Your task to perform on an android device: Add usb-a to usb-b to the cart on newegg, then select checkout. Image 0: 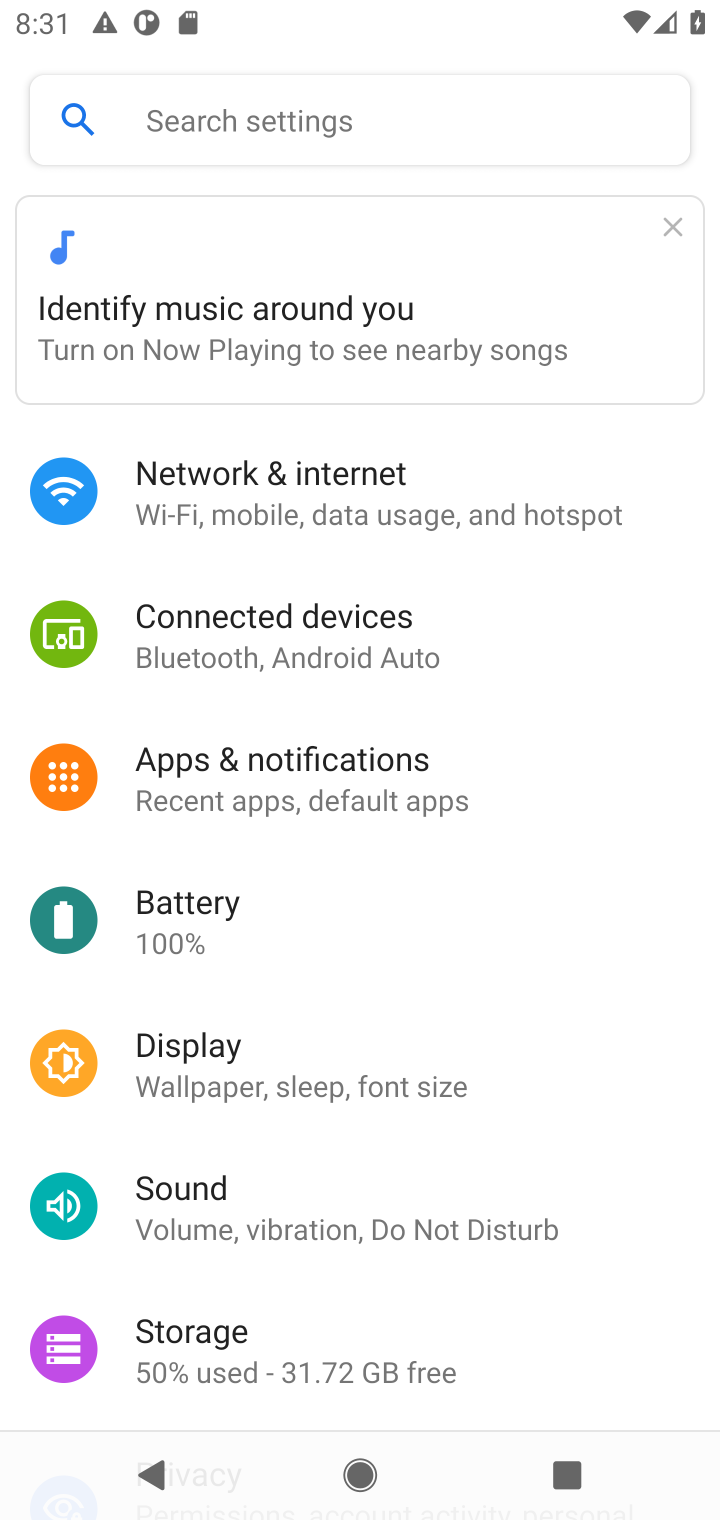
Step 0: press home button
Your task to perform on an android device: Add usb-a to usb-b to the cart on newegg, then select checkout. Image 1: 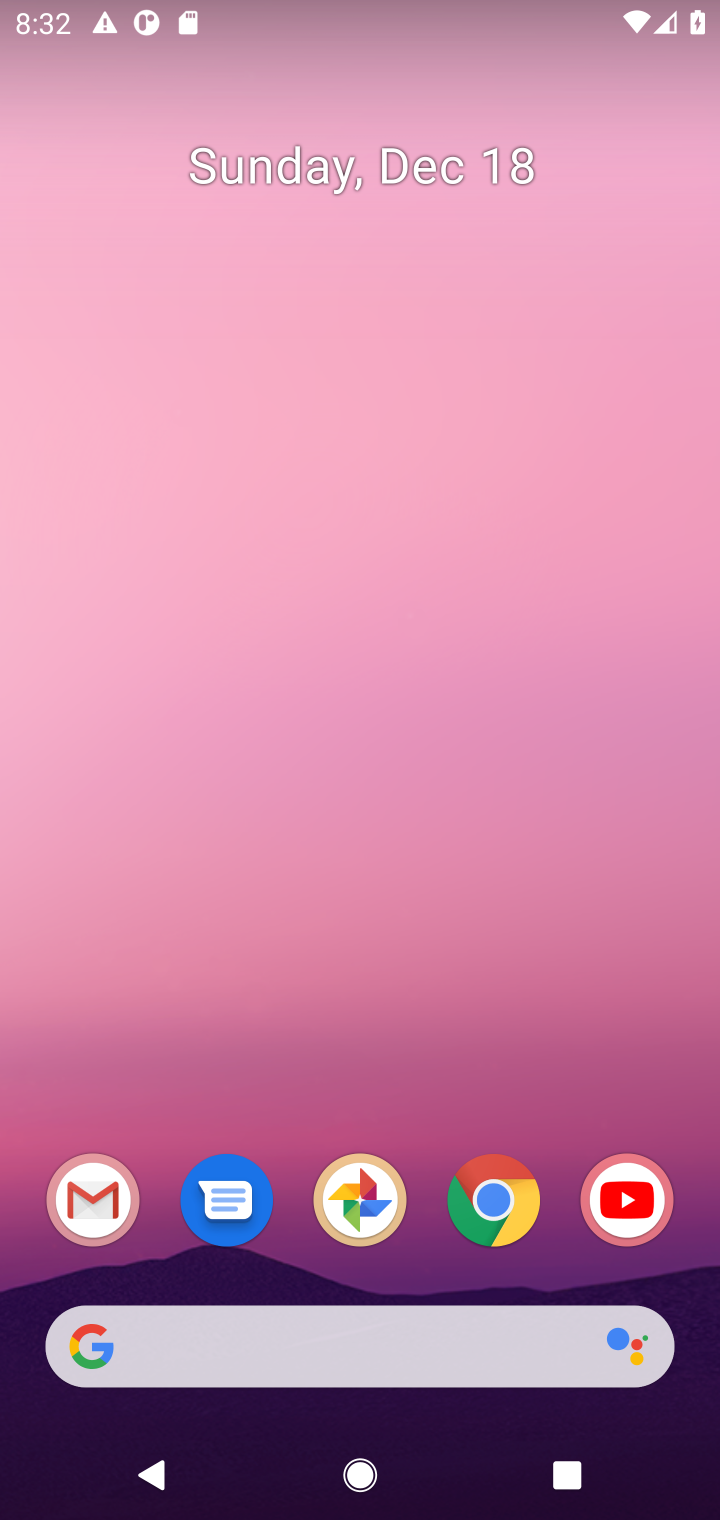
Step 1: click (491, 1210)
Your task to perform on an android device: Add usb-a to usb-b to the cart on newegg, then select checkout. Image 2: 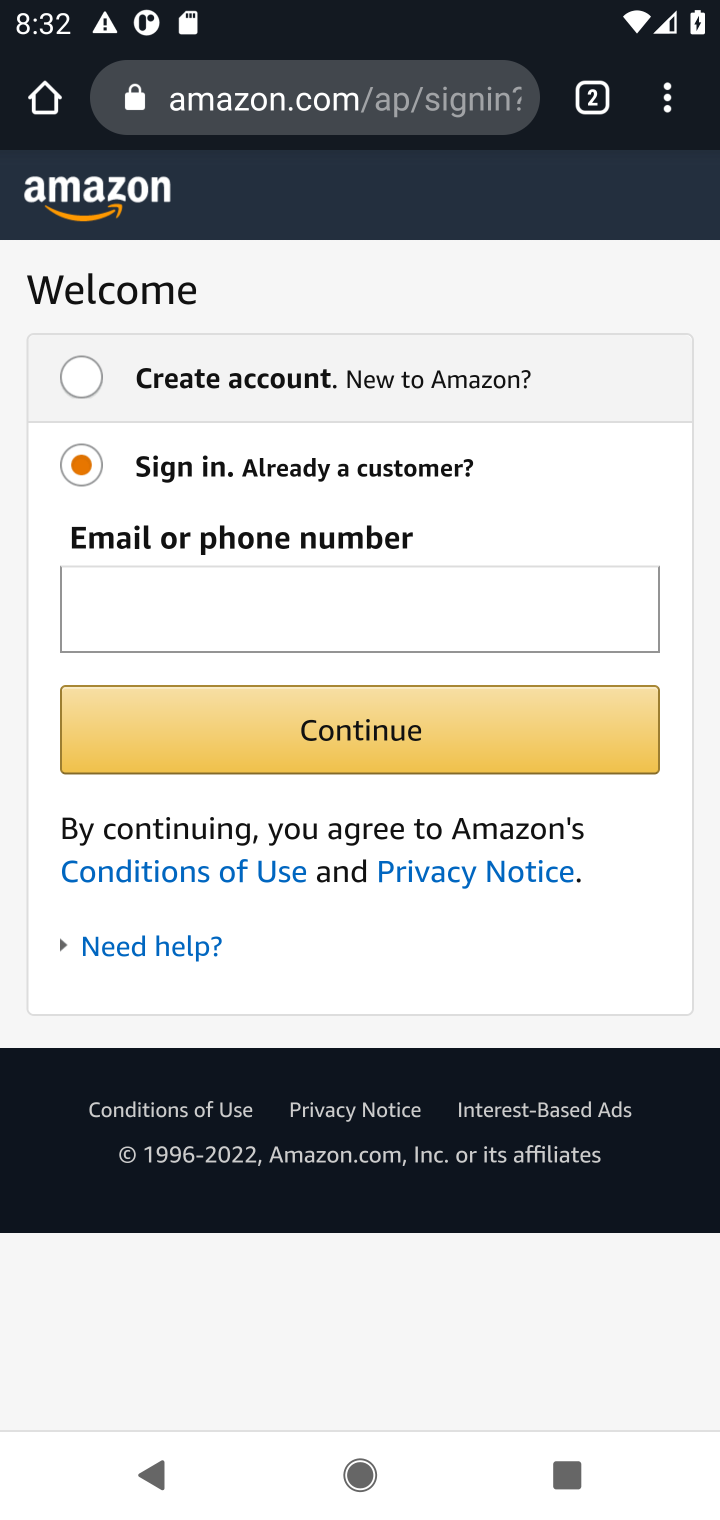
Step 2: click (239, 121)
Your task to perform on an android device: Add usb-a to usb-b to the cart on newegg, then select checkout. Image 3: 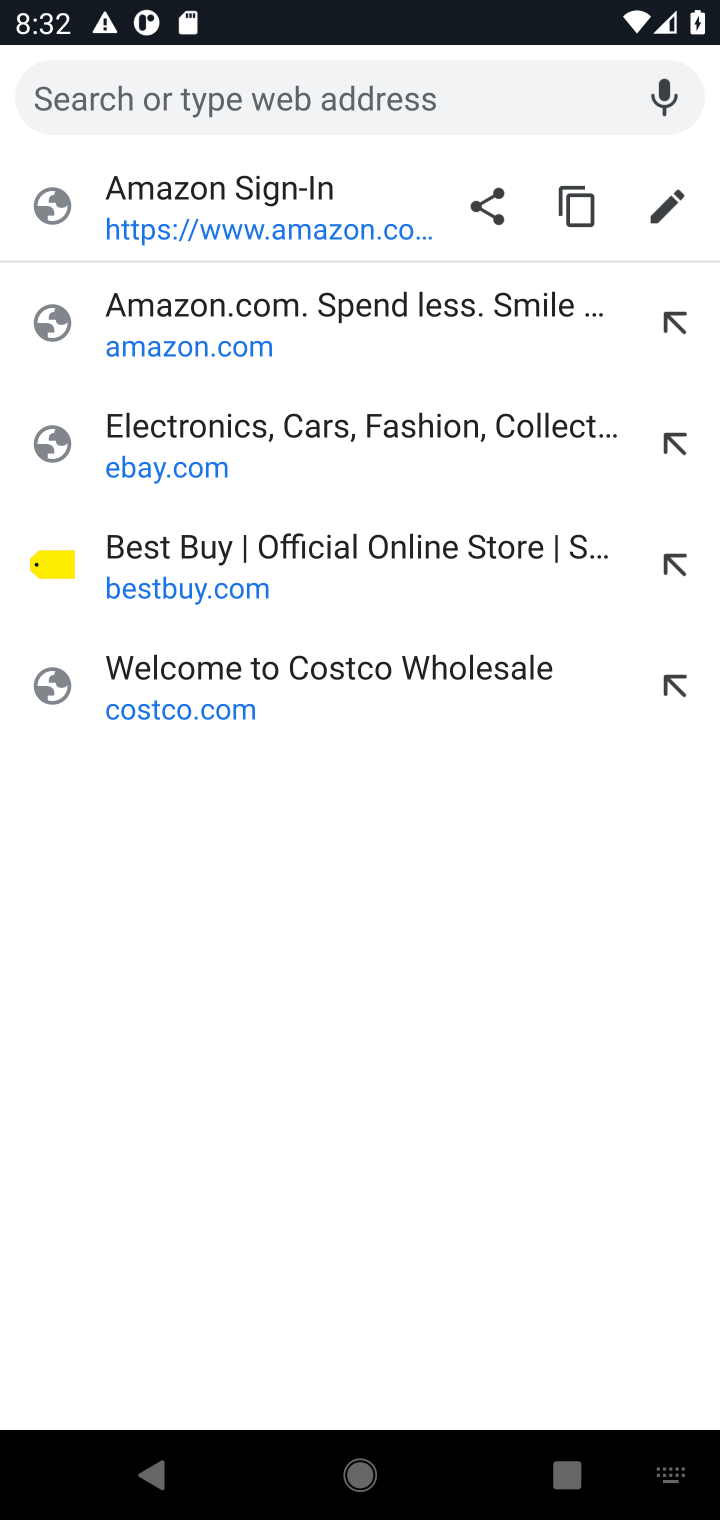
Step 3: type "newegg.com"
Your task to perform on an android device: Add usb-a to usb-b to the cart on newegg, then select checkout. Image 4: 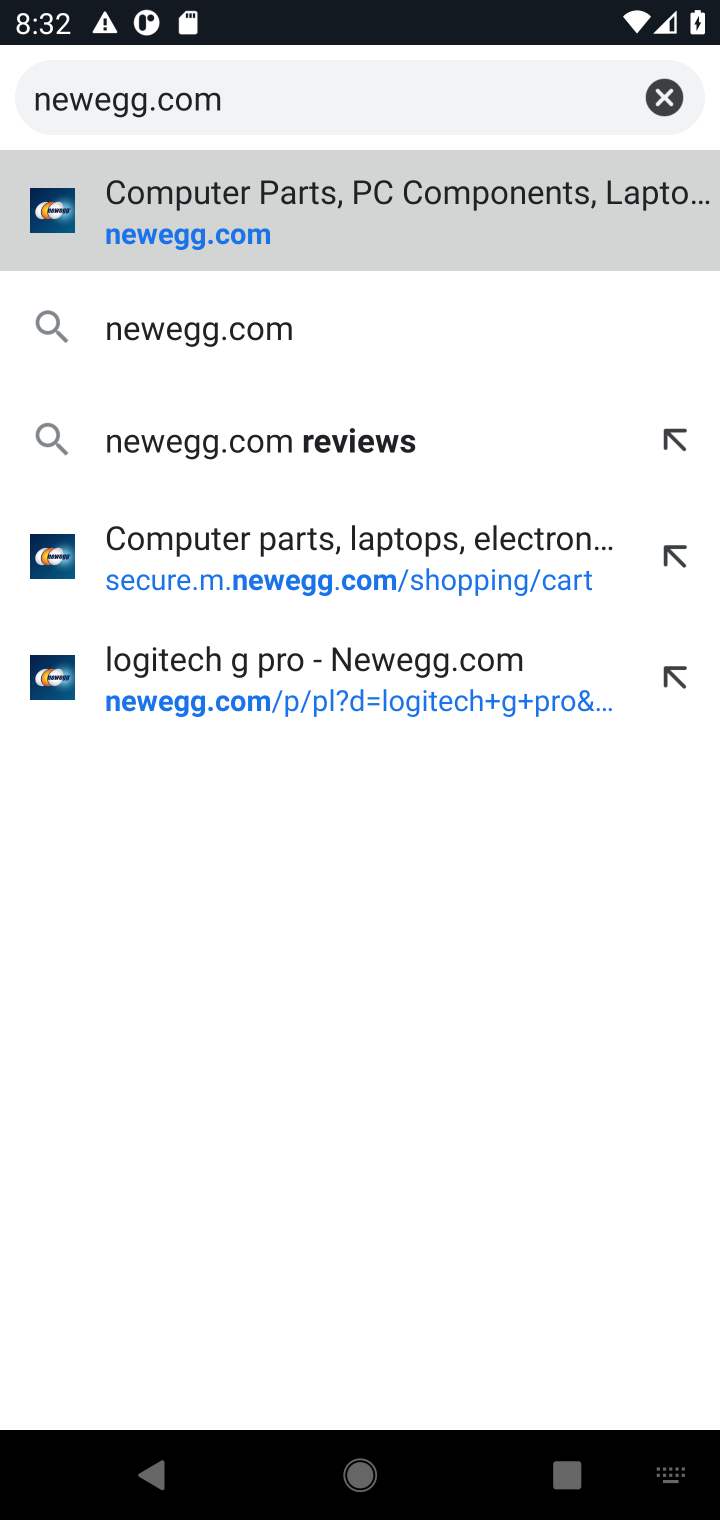
Step 4: click (192, 243)
Your task to perform on an android device: Add usb-a to usb-b to the cart on newegg, then select checkout. Image 5: 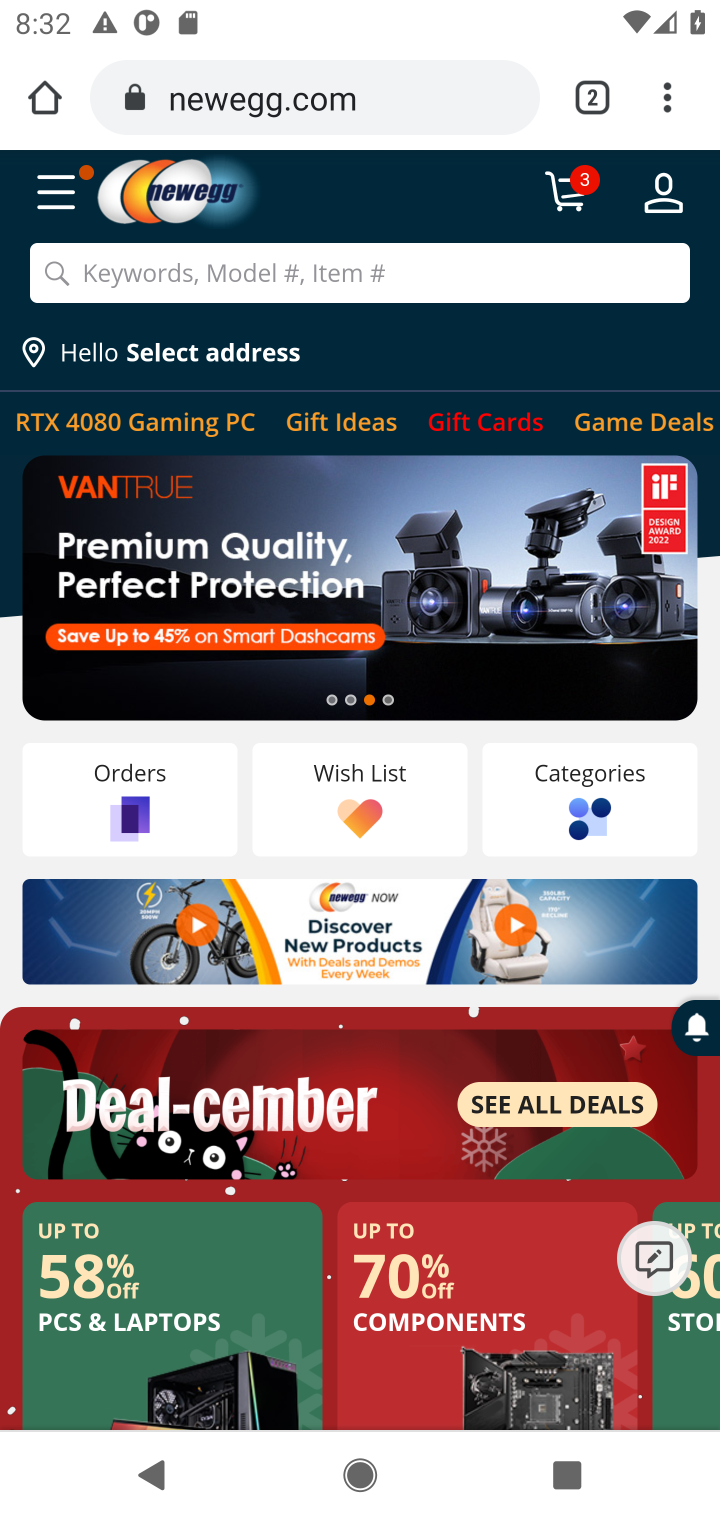
Step 5: click (113, 267)
Your task to perform on an android device: Add usb-a to usb-b to the cart on newegg, then select checkout. Image 6: 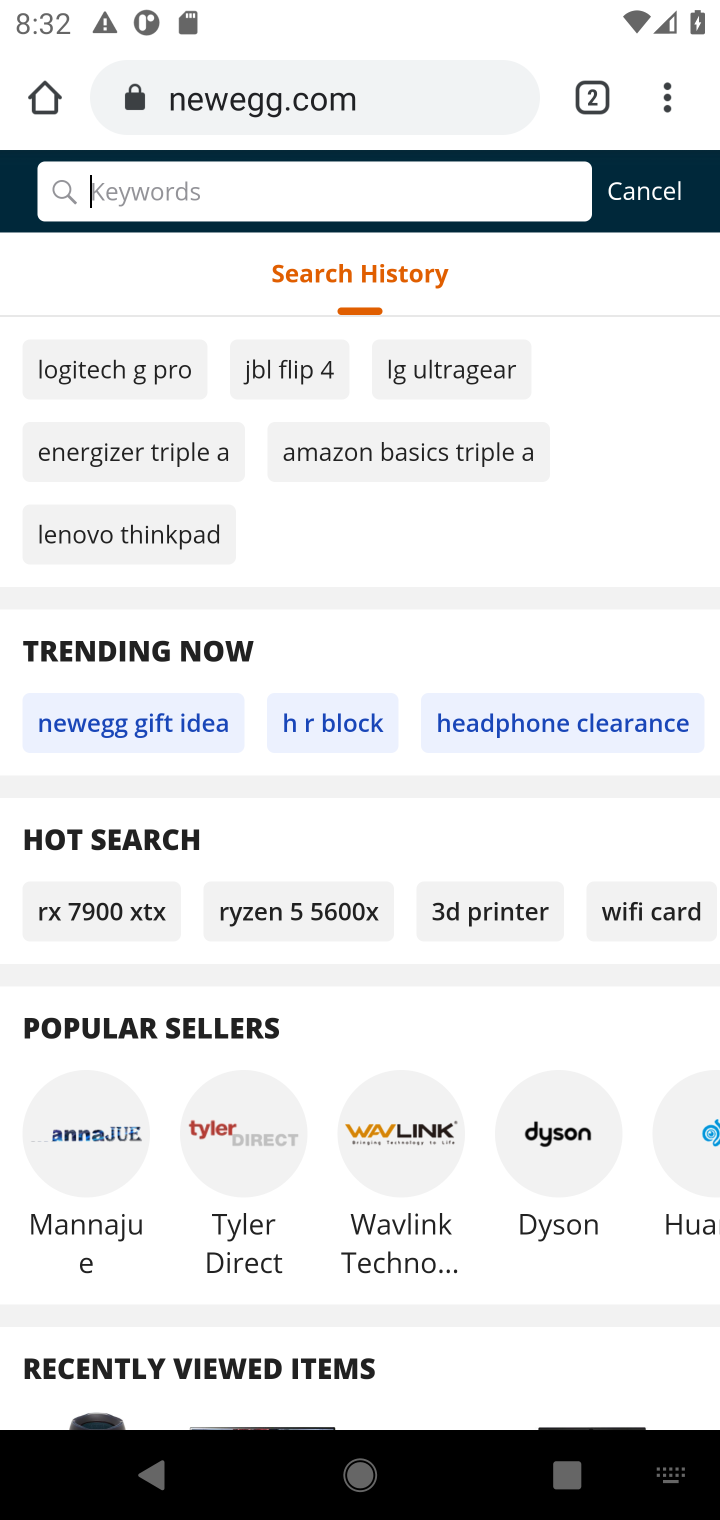
Step 6: type "usb-a to usb-b"
Your task to perform on an android device: Add usb-a to usb-b to the cart on newegg, then select checkout. Image 7: 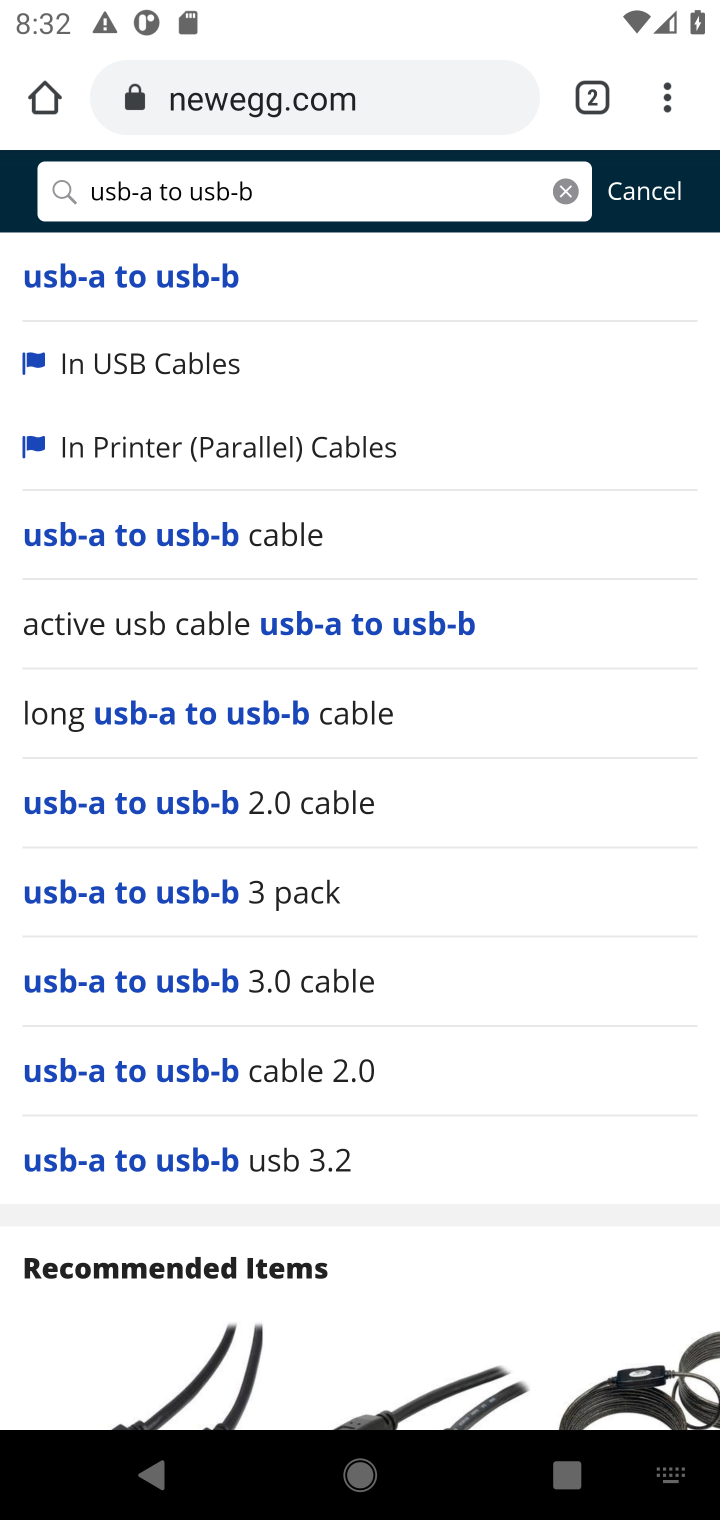
Step 7: click (154, 280)
Your task to perform on an android device: Add usb-a to usb-b to the cart on newegg, then select checkout. Image 8: 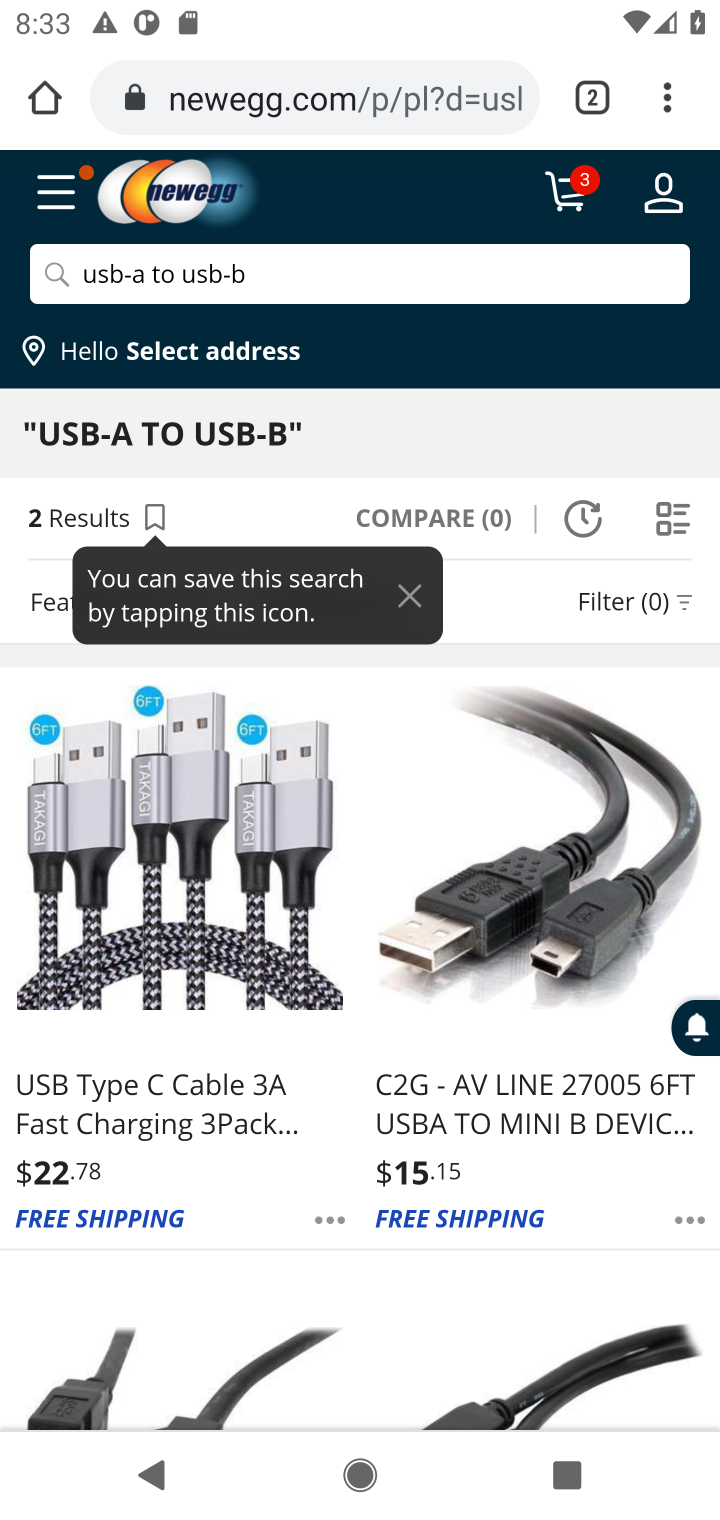
Step 8: drag from (262, 1155) to (280, 527)
Your task to perform on an android device: Add usb-a to usb-b to the cart on newegg, then select checkout. Image 9: 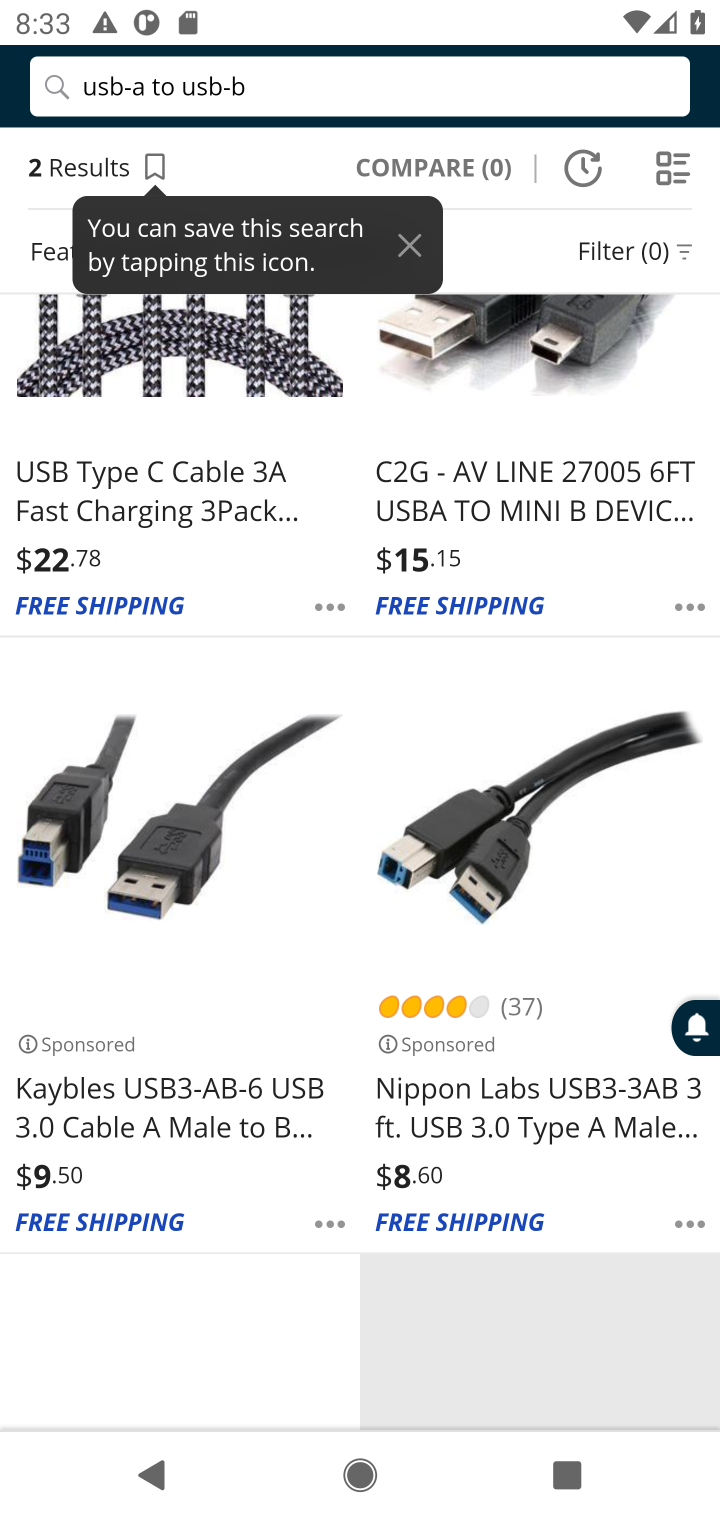
Step 9: drag from (212, 1195) to (195, 680)
Your task to perform on an android device: Add usb-a to usb-b to the cart on newegg, then select checkout. Image 10: 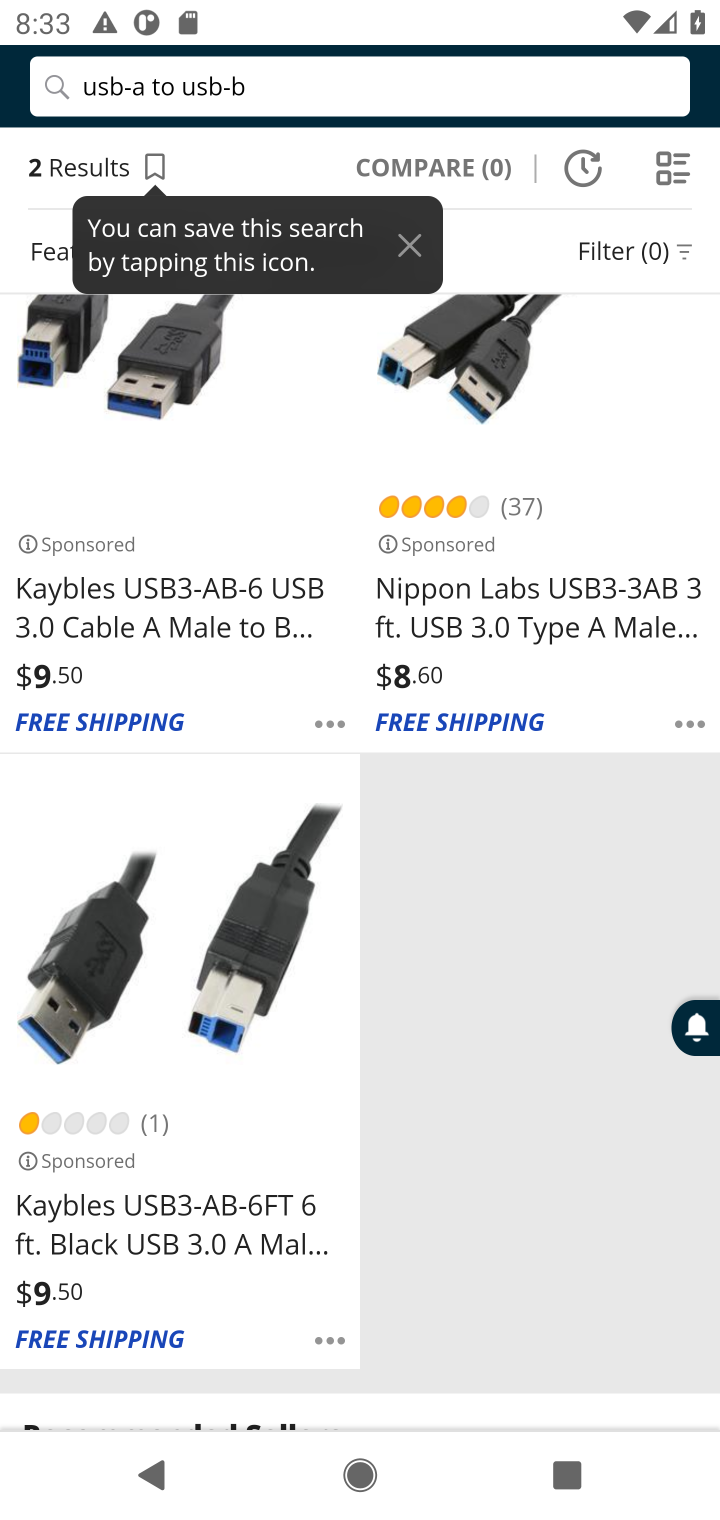
Step 10: click (514, 618)
Your task to perform on an android device: Add usb-a to usb-b to the cart on newegg, then select checkout. Image 11: 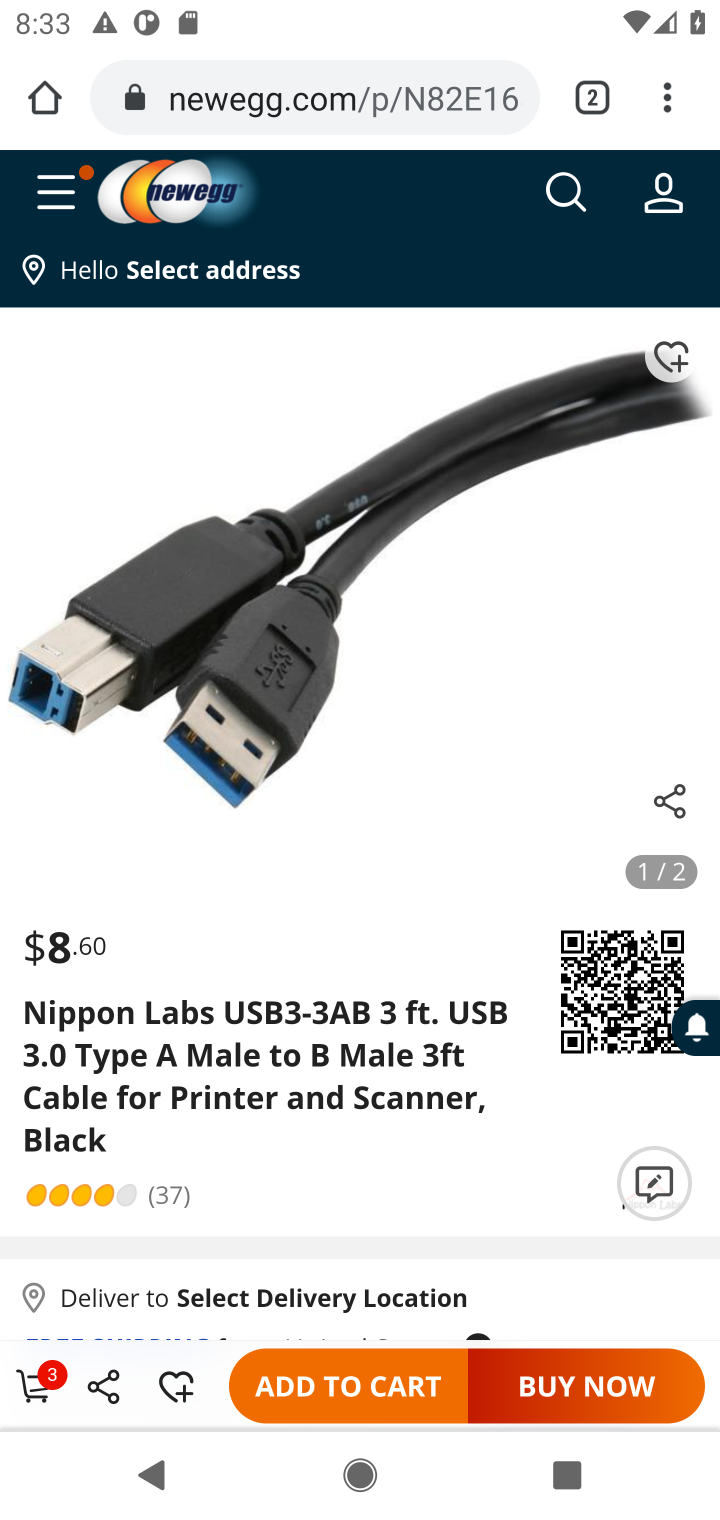
Step 11: press back button
Your task to perform on an android device: Add usb-a to usb-b to the cart on newegg, then select checkout. Image 12: 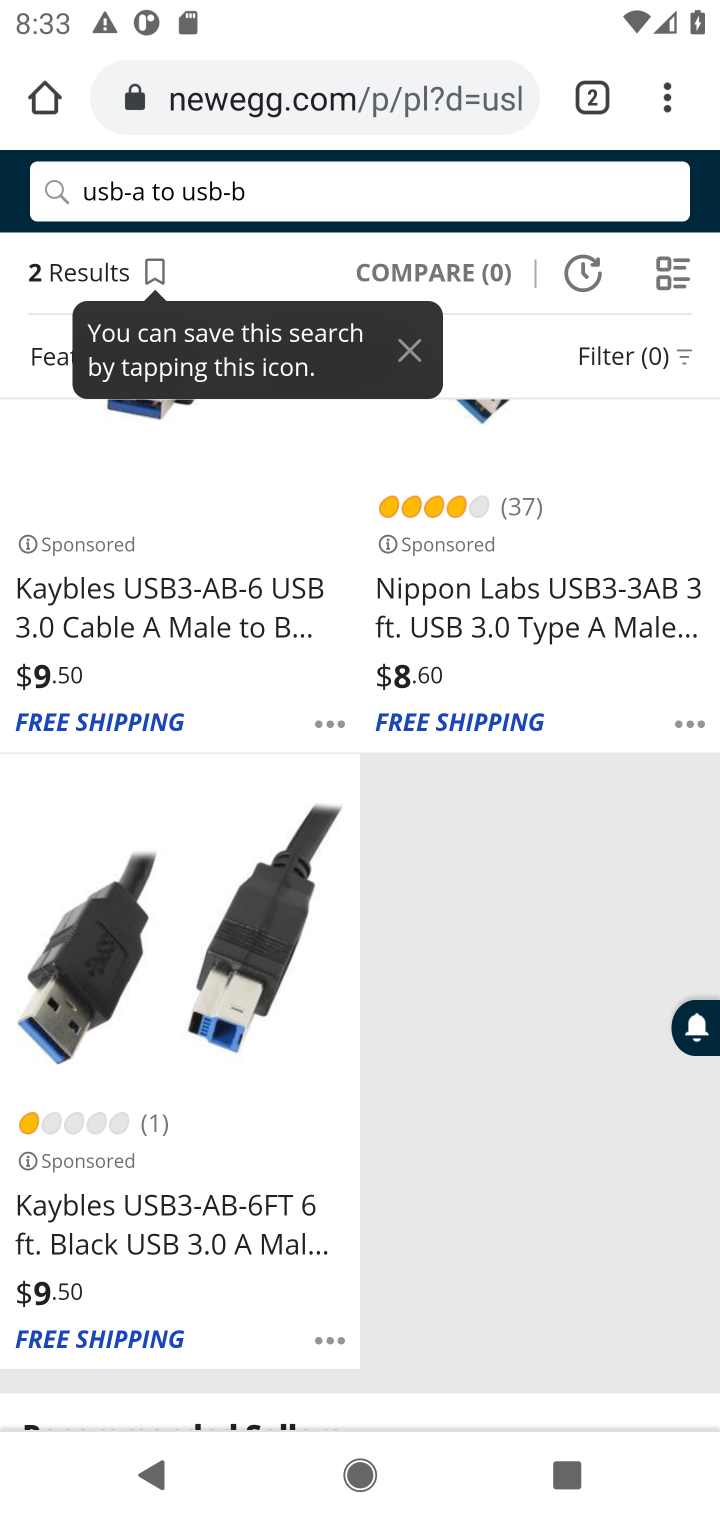
Step 12: click (162, 1247)
Your task to perform on an android device: Add usb-a to usb-b to the cart on newegg, then select checkout. Image 13: 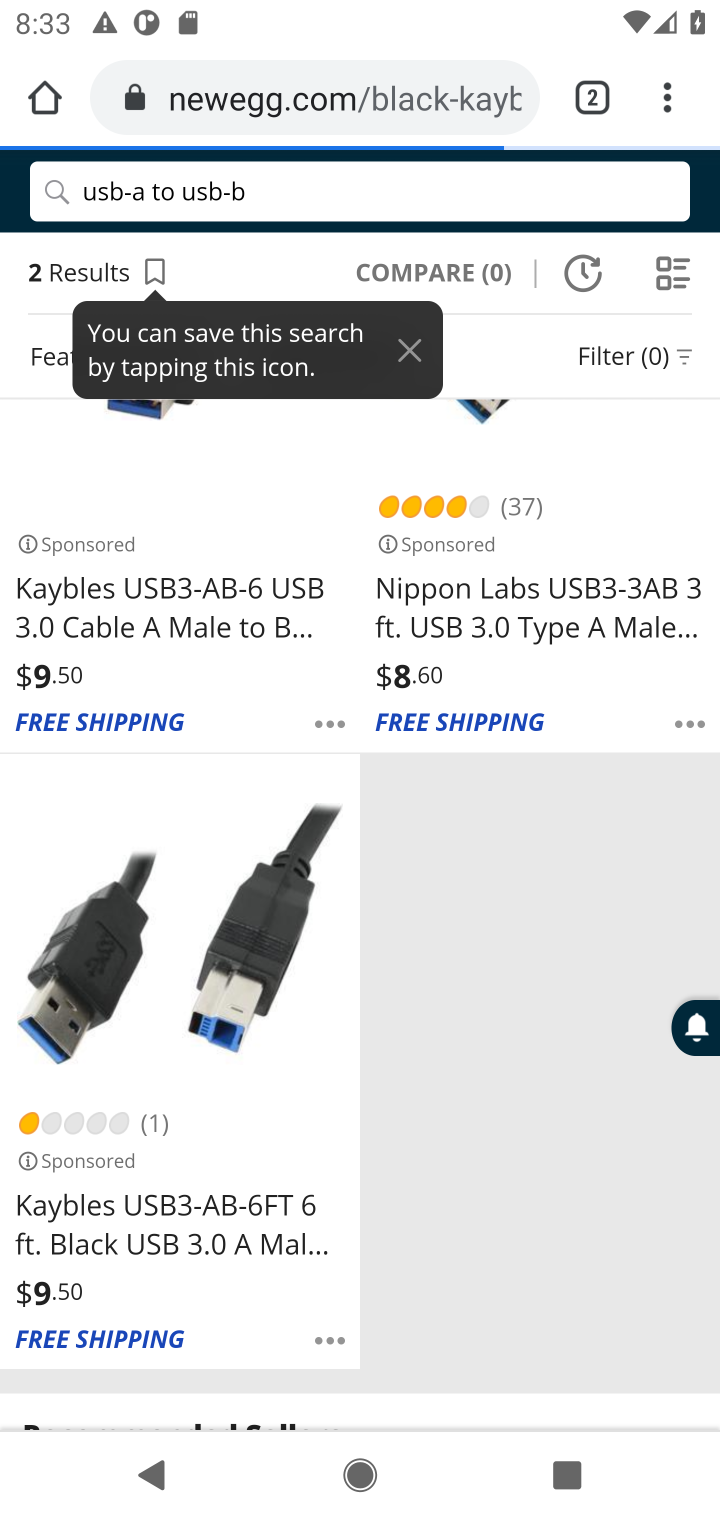
Step 13: click (111, 1232)
Your task to perform on an android device: Add usb-a to usb-b to the cart on newegg, then select checkout. Image 14: 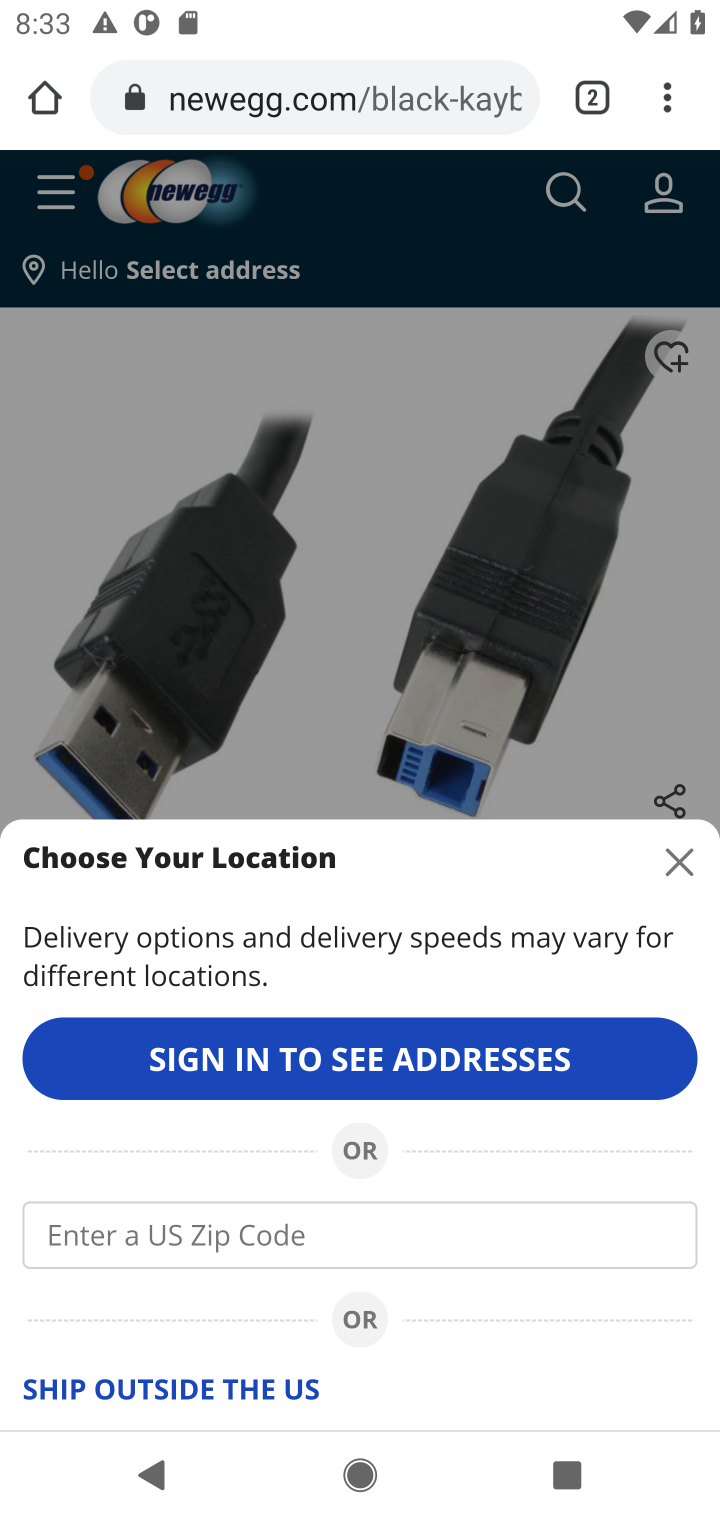
Step 14: click (685, 858)
Your task to perform on an android device: Add usb-a to usb-b to the cart on newegg, then select checkout. Image 15: 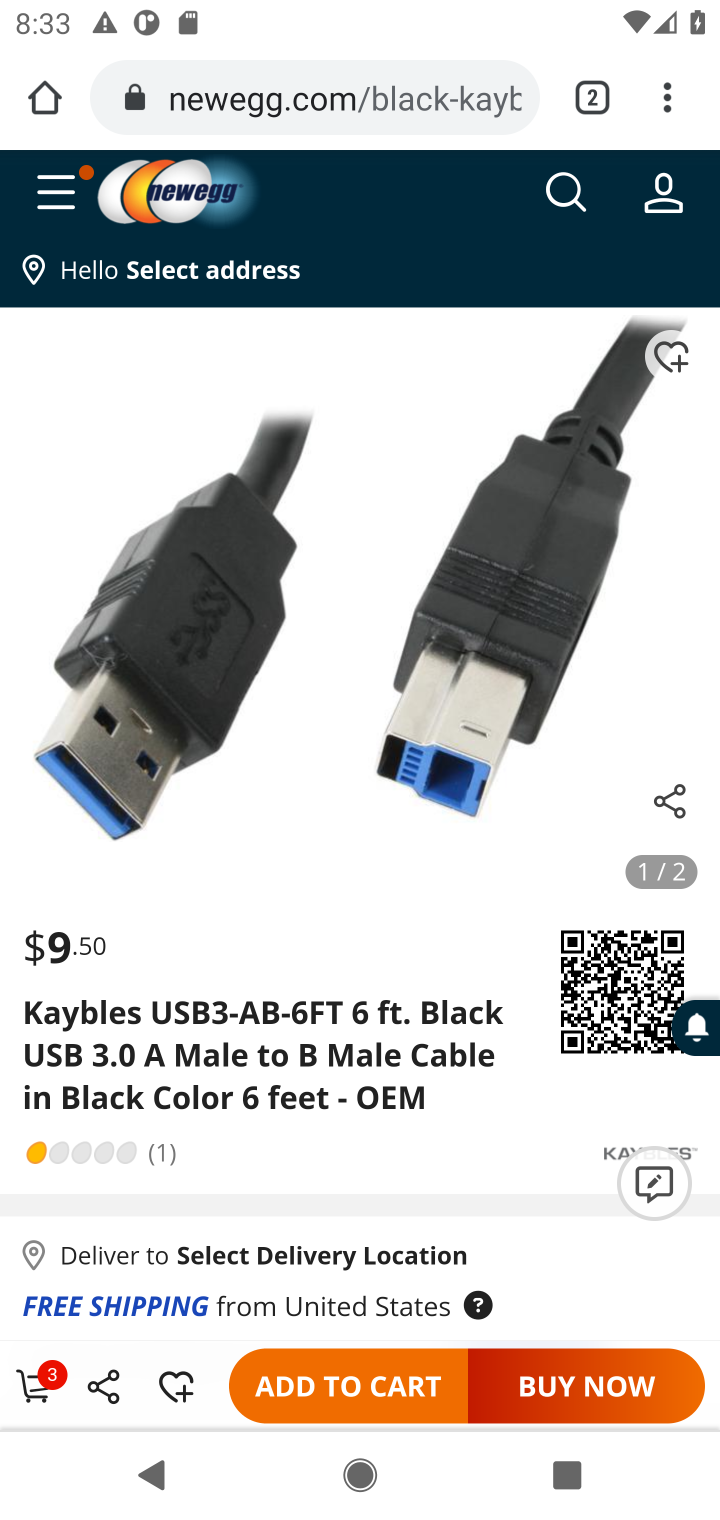
Step 15: task complete